Your task to perform on an android device: Open Maps and search for coffee Image 0: 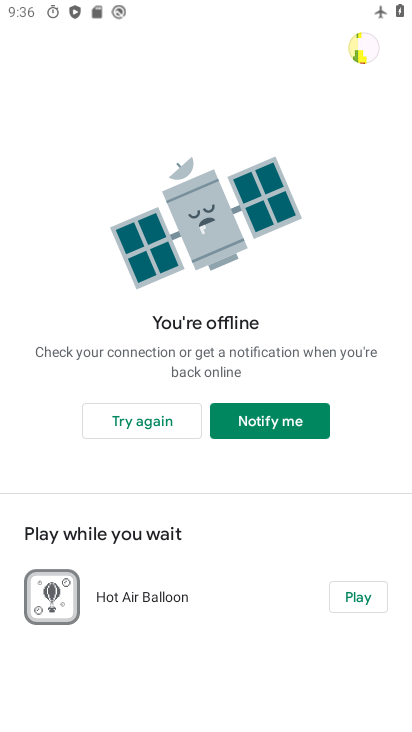
Step 0: press back button
Your task to perform on an android device: Open Maps and search for coffee Image 1: 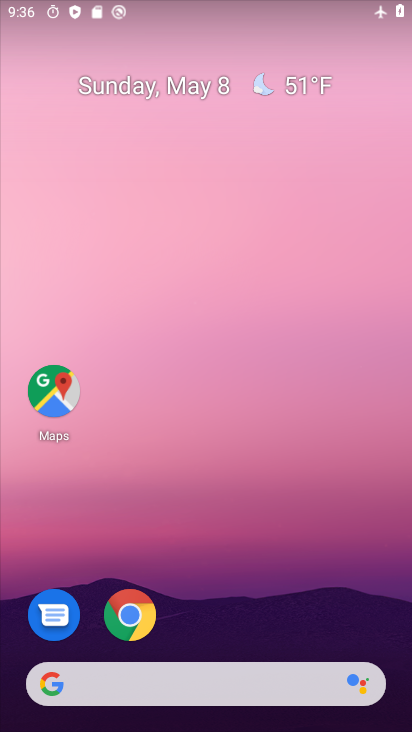
Step 1: click (57, 369)
Your task to perform on an android device: Open Maps and search for coffee Image 2: 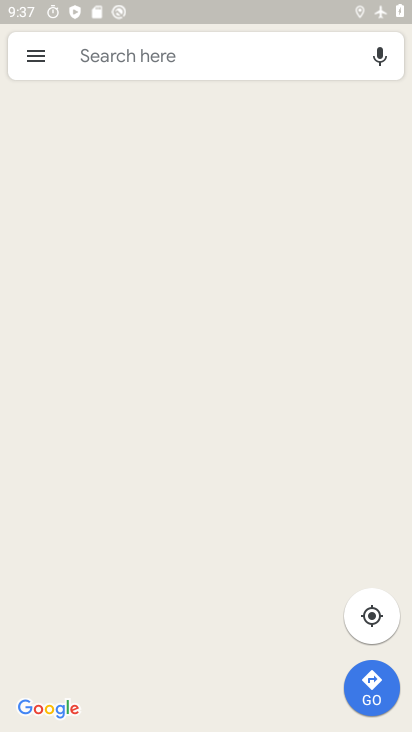
Step 2: task complete